Your task to perform on an android device: Clear all items from cart on costco. Image 0: 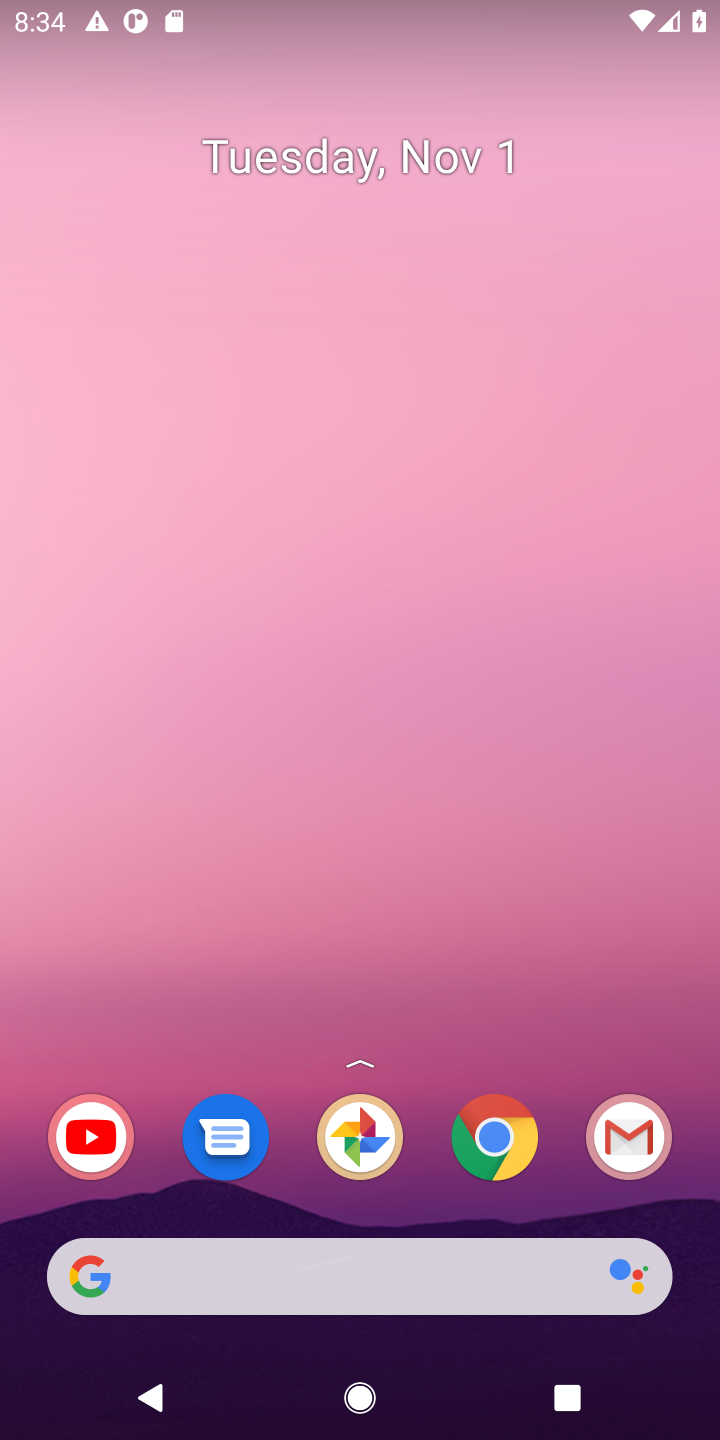
Step 0: click (389, 1245)
Your task to perform on an android device: Clear all items from cart on costco. Image 1: 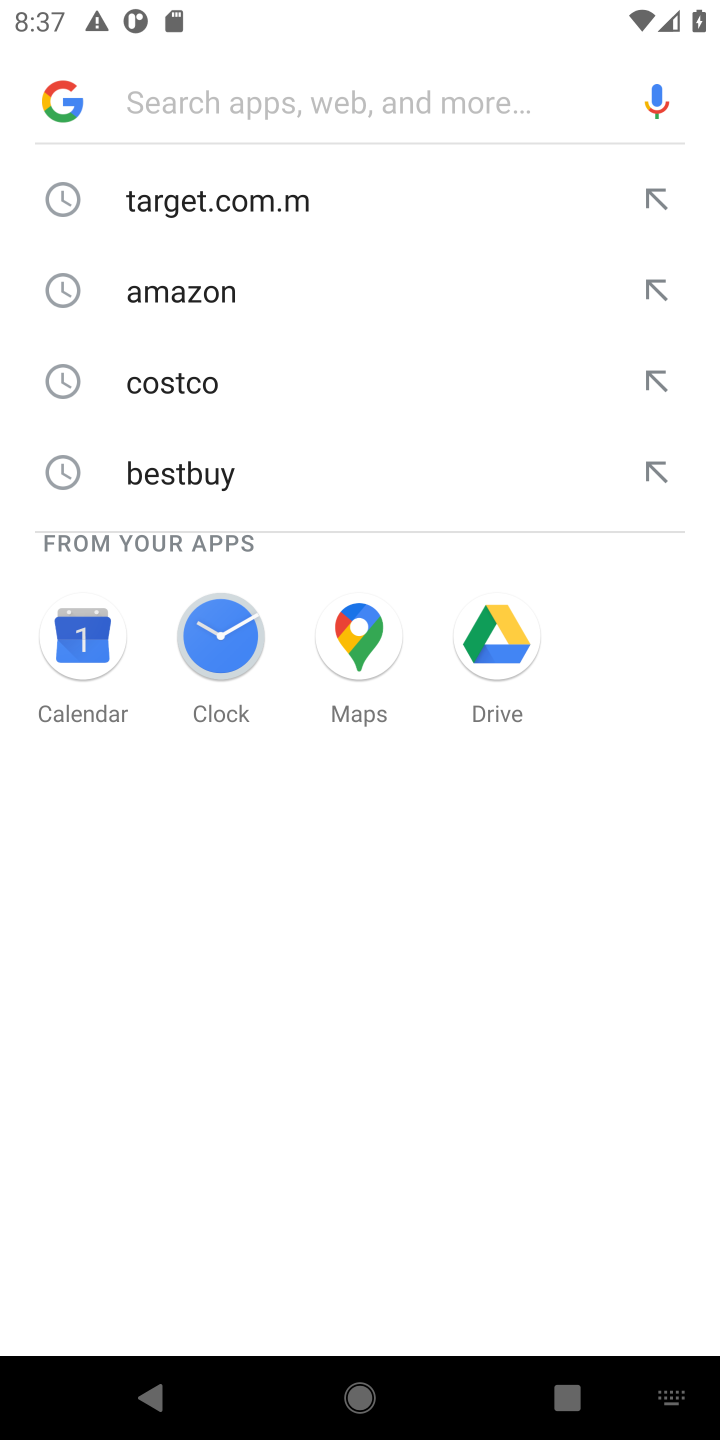
Step 1: click (186, 404)
Your task to perform on an android device: Clear all items from cart on costco. Image 2: 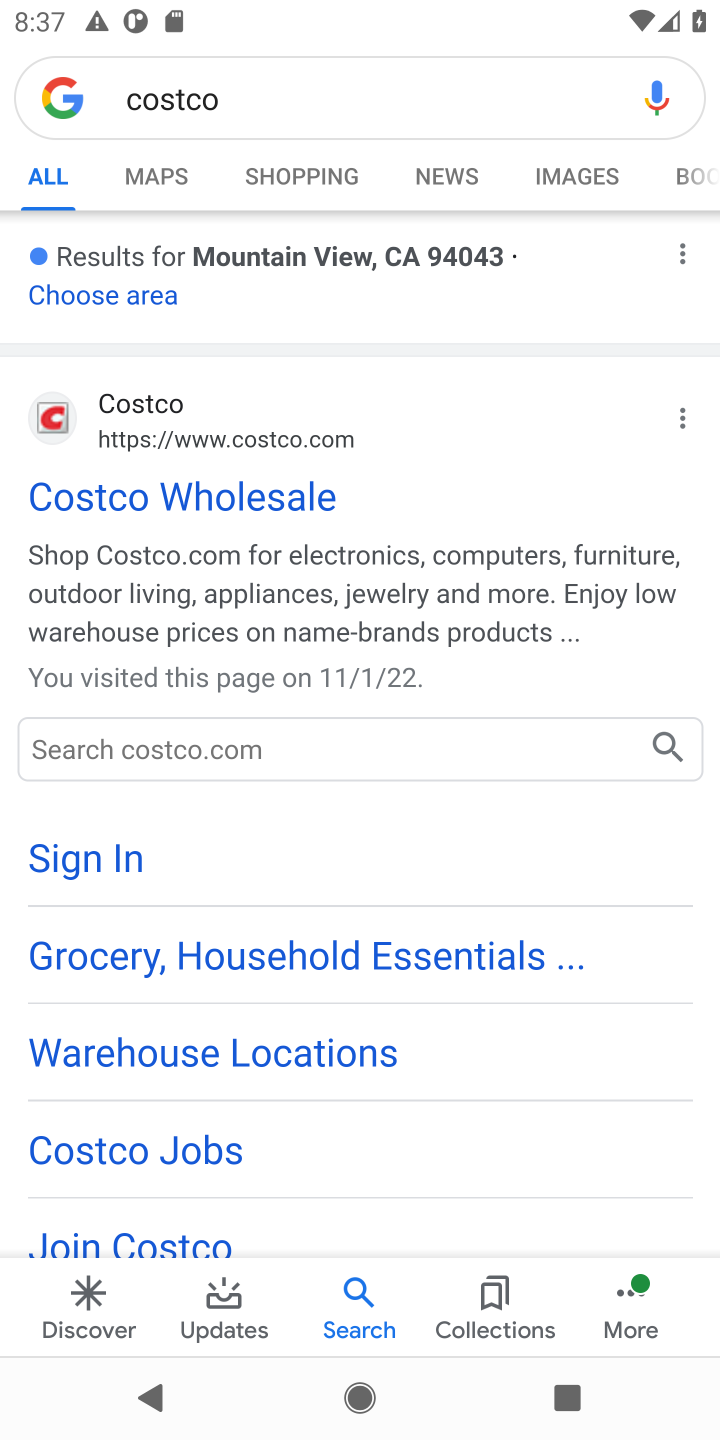
Step 2: click (155, 429)
Your task to perform on an android device: Clear all items from cart on costco. Image 3: 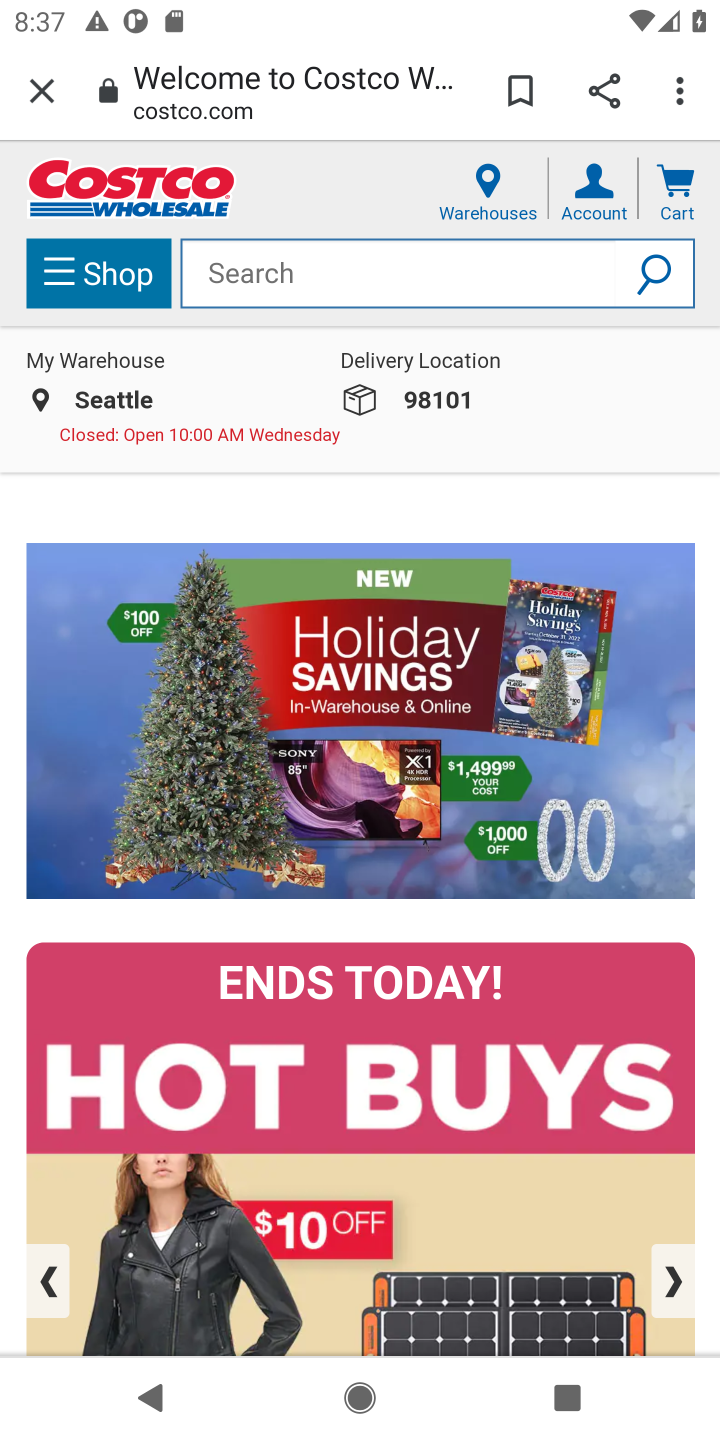
Step 3: click (667, 192)
Your task to perform on an android device: Clear all items from cart on costco. Image 4: 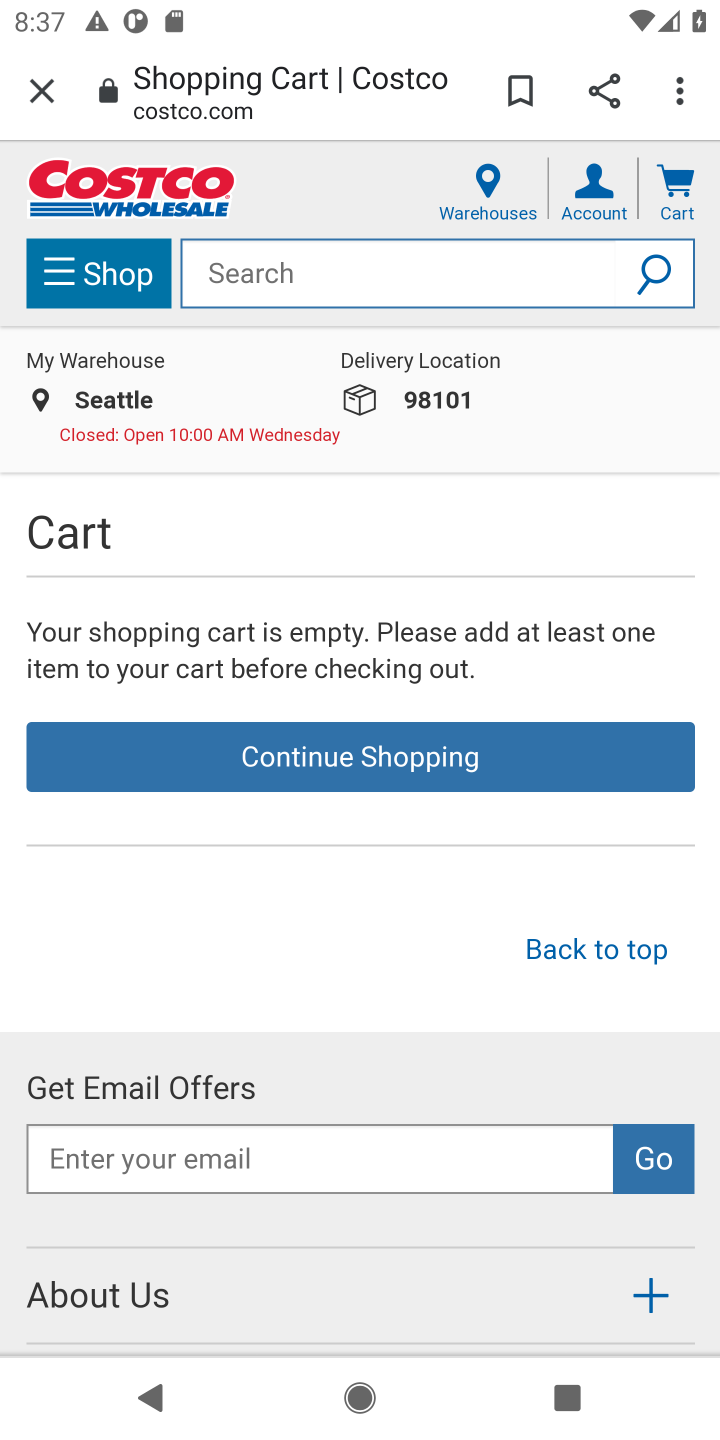
Step 4: task complete